Your task to perform on an android device: turn off notifications settings in the gmail app Image 0: 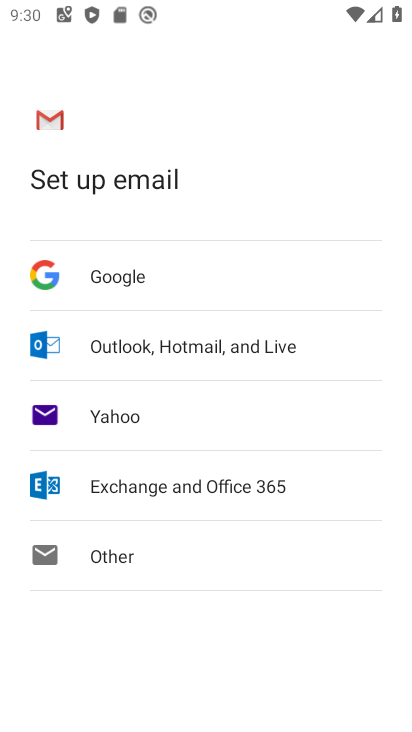
Step 0: press home button
Your task to perform on an android device: turn off notifications settings in the gmail app Image 1: 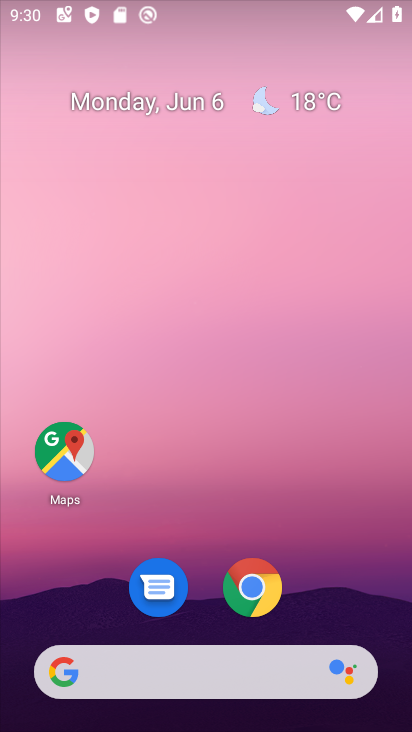
Step 1: drag from (315, 617) to (288, 131)
Your task to perform on an android device: turn off notifications settings in the gmail app Image 2: 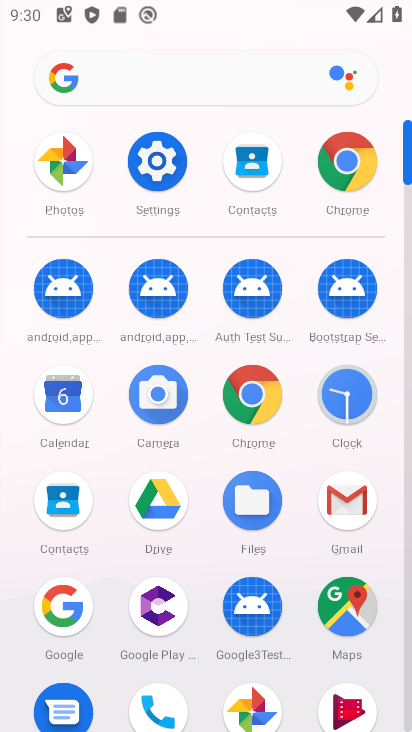
Step 2: click (340, 493)
Your task to perform on an android device: turn off notifications settings in the gmail app Image 3: 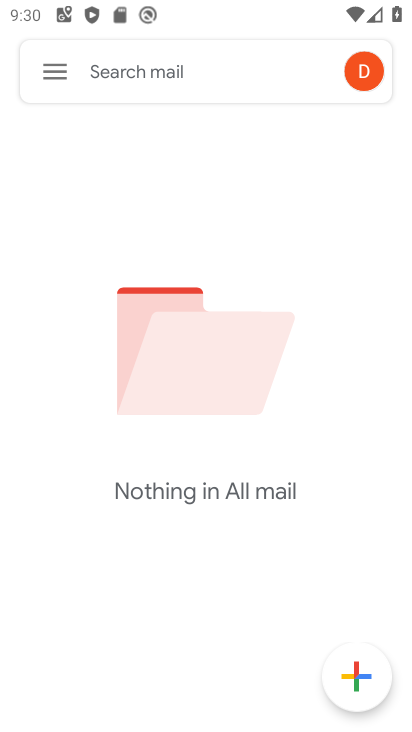
Step 3: click (47, 64)
Your task to perform on an android device: turn off notifications settings in the gmail app Image 4: 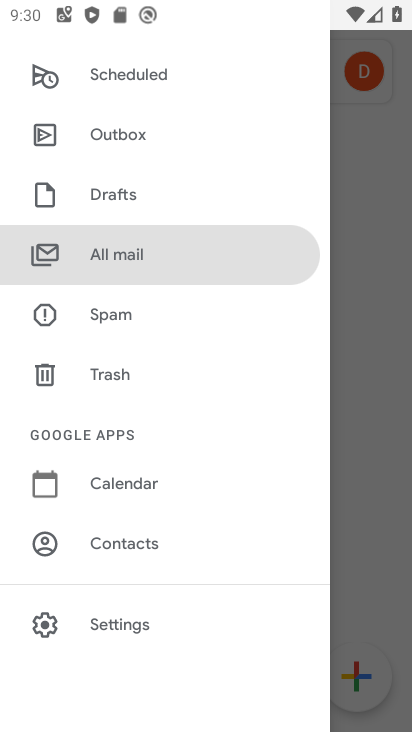
Step 4: click (118, 618)
Your task to perform on an android device: turn off notifications settings in the gmail app Image 5: 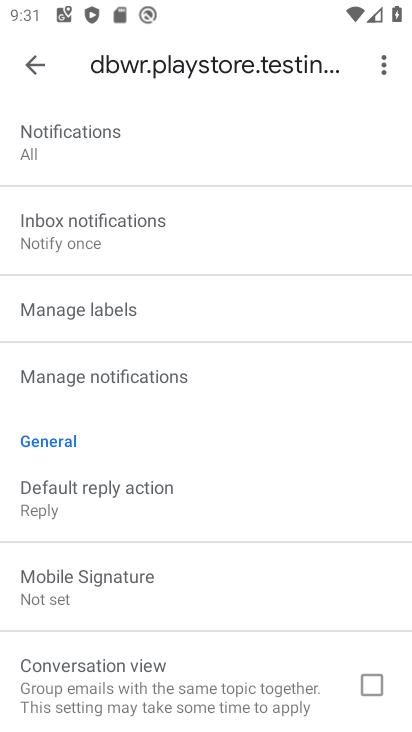
Step 5: drag from (167, 216) to (208, 290)
Your task to perform on an android device: turn off notifications settings in the gmail app Image 6: 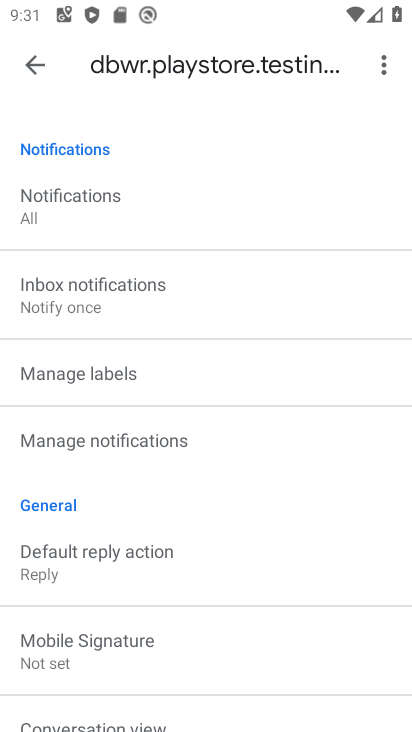
Step 6: click (126, 431)
Your task to perform on an android device: turn off notifications settings in the gmail app Image 7: 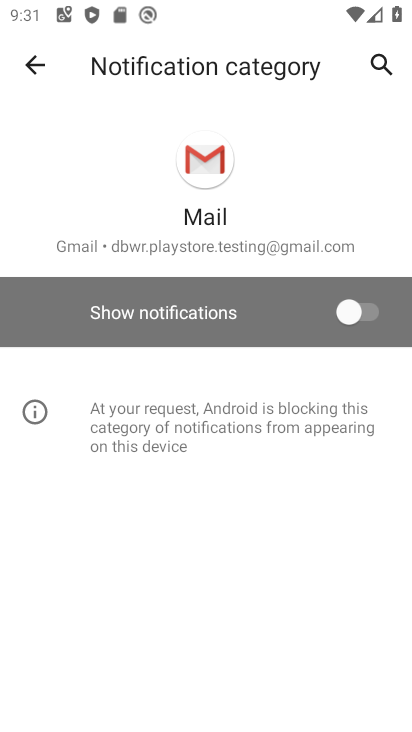
Step 7: task complete